Your task to perform on an android device: turn on wifi Image 0: 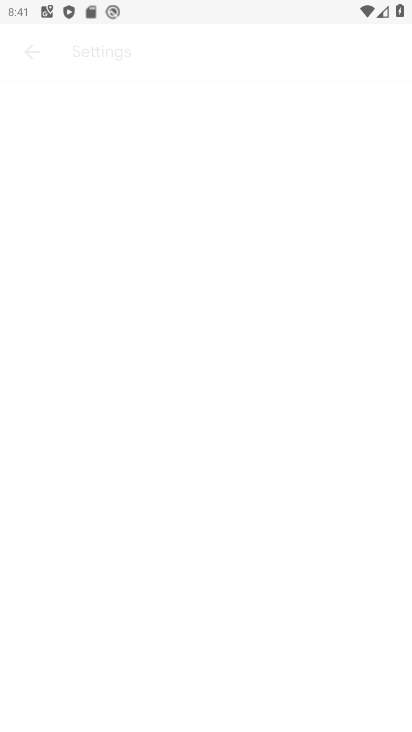
Step 0: drag from (391, 583) to (364, 179)
Your task to perform on an android device: turn on wifi Image 1: 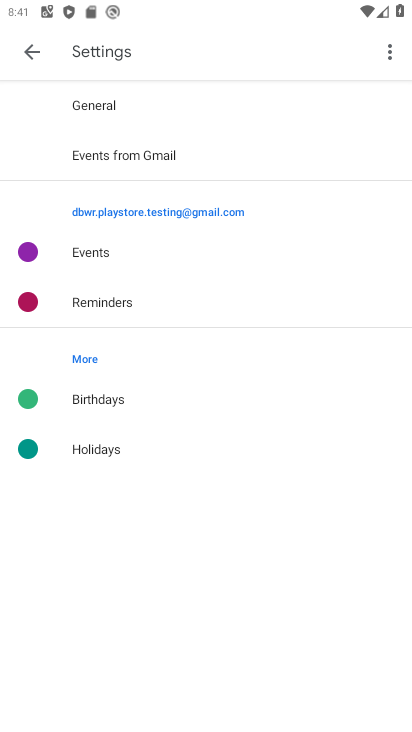
Step 1: press home button
Your task to perform on an android device: turn on wifi Image 2: 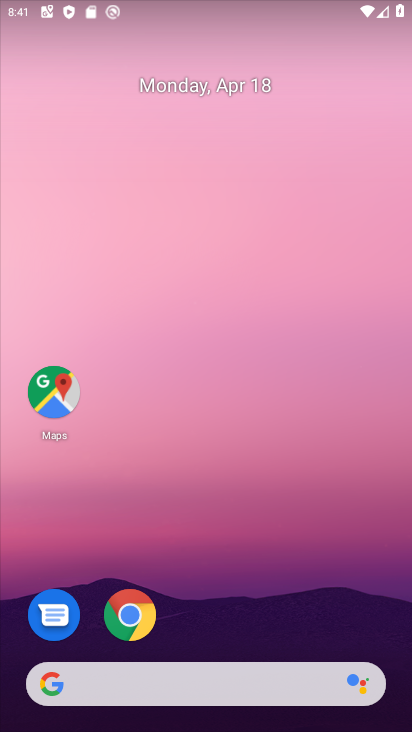
Step 2: drag from (379, 597) to (344, 145)
Your task to perform on an android device: turn on wifi Image 3: 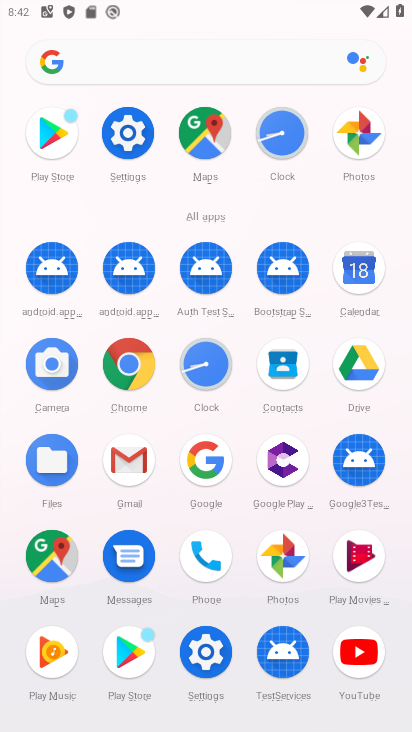
Step 3: click (121, 142)
Your task to perform on an android device: turn on wifi Image 4: 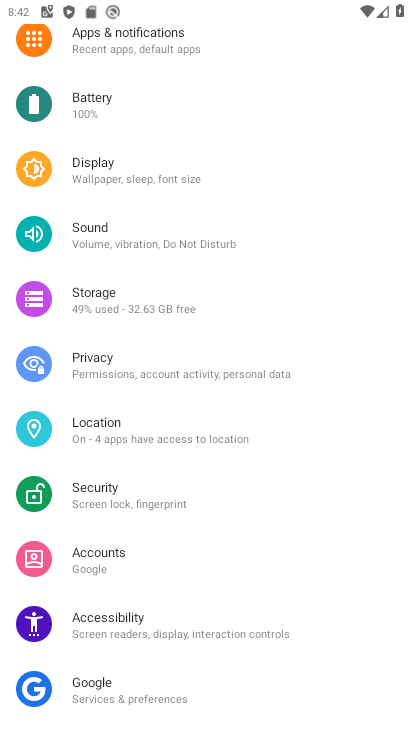
Step 4: drag from (210, 98) to (266, 529)
Your task to perform on an android device: turn on wifi Image 5: 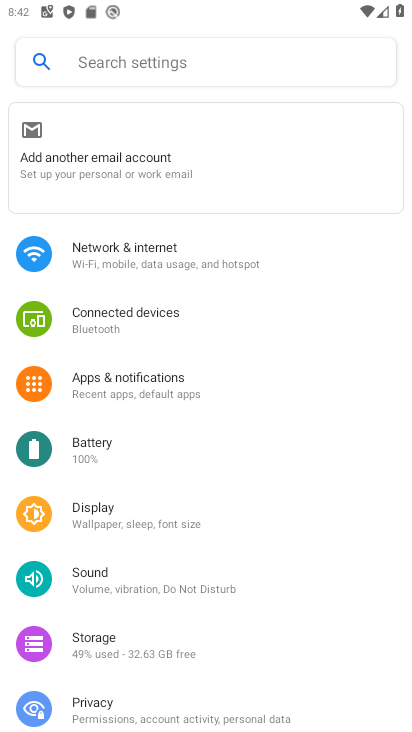
Step 5: click (151, 244)
Your task to perform on an android device: turn on wifi Image 6: 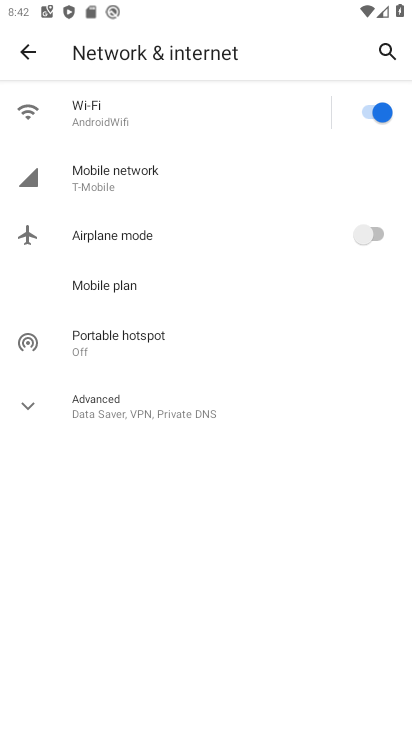
Step 6: task complete